Your task to perform on an android device: Open Android settings Image 0: 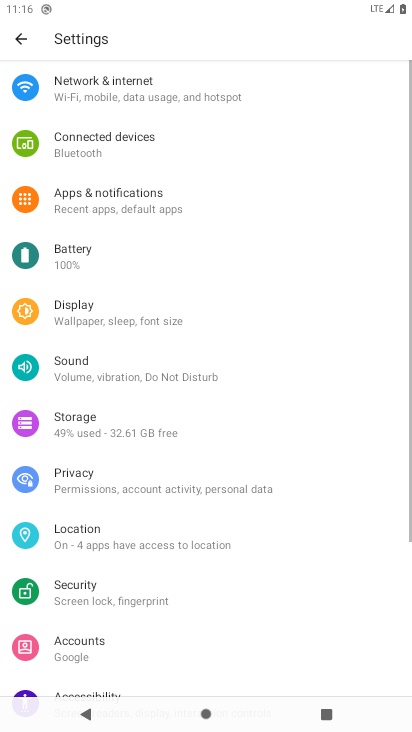
Step 0: press home button
Your task to perform on an android device: Open Android settings Image 1: 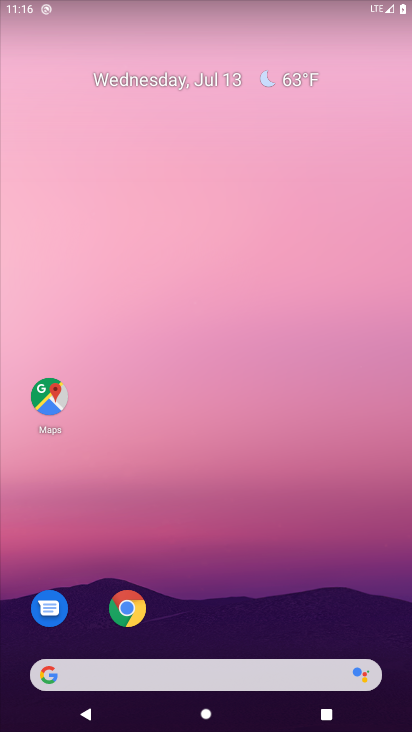
Step 1: drag from (227, 577) to (357, 90)
Your task to perform on an android device: Open Android settings Image 2: 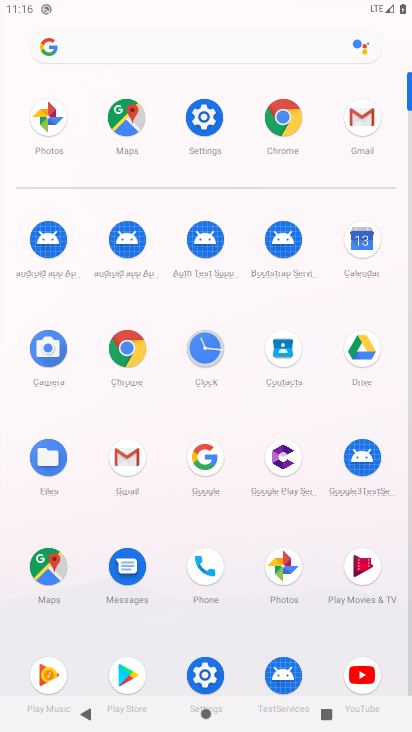
Step 2: click (205, 661)
Your task to perform on an android device: Open Android settings Image 3: 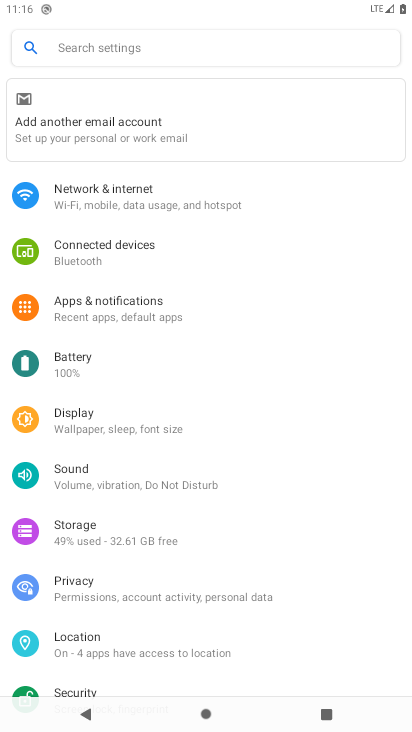
Step 3: drag from (268, 604) to (351, 211)
Your task to perform on an android device: Open Android settings Image 4: 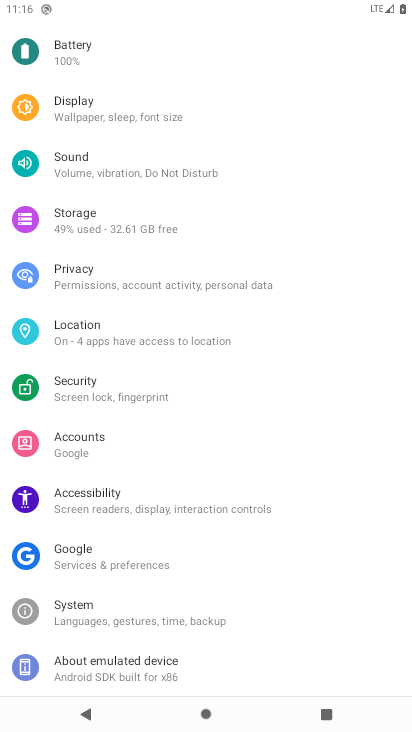
Step 4: click (86, 667)
Your task to perform on an android device: Open Android settings Image 5: 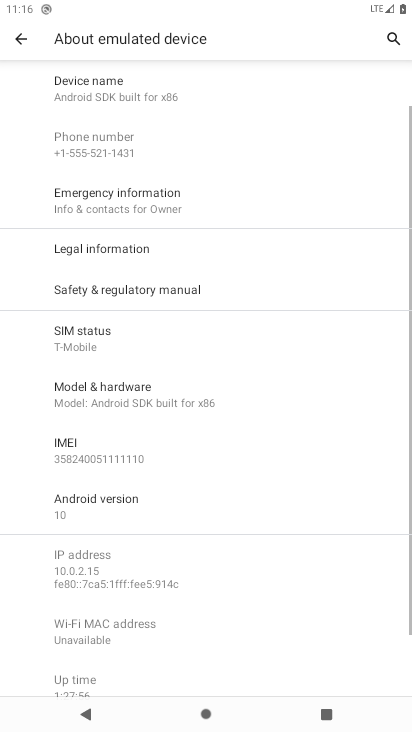
Step 5: click (100, 493)
Your task to perform on an android device: Open Android settings Image 6: 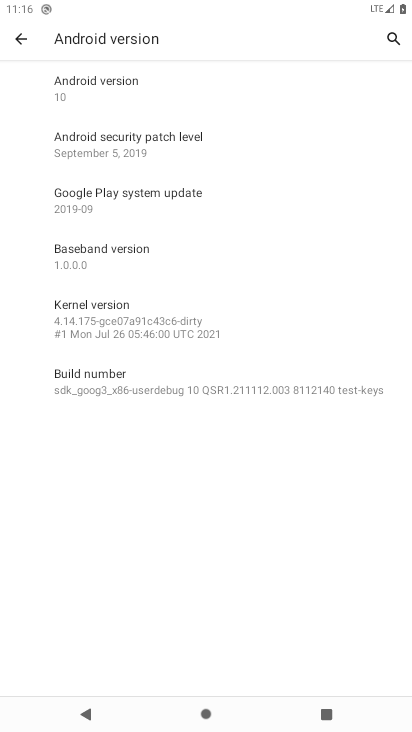
Step 6: task complete